Your task to perform on an android device: Open internet settings Image 0: 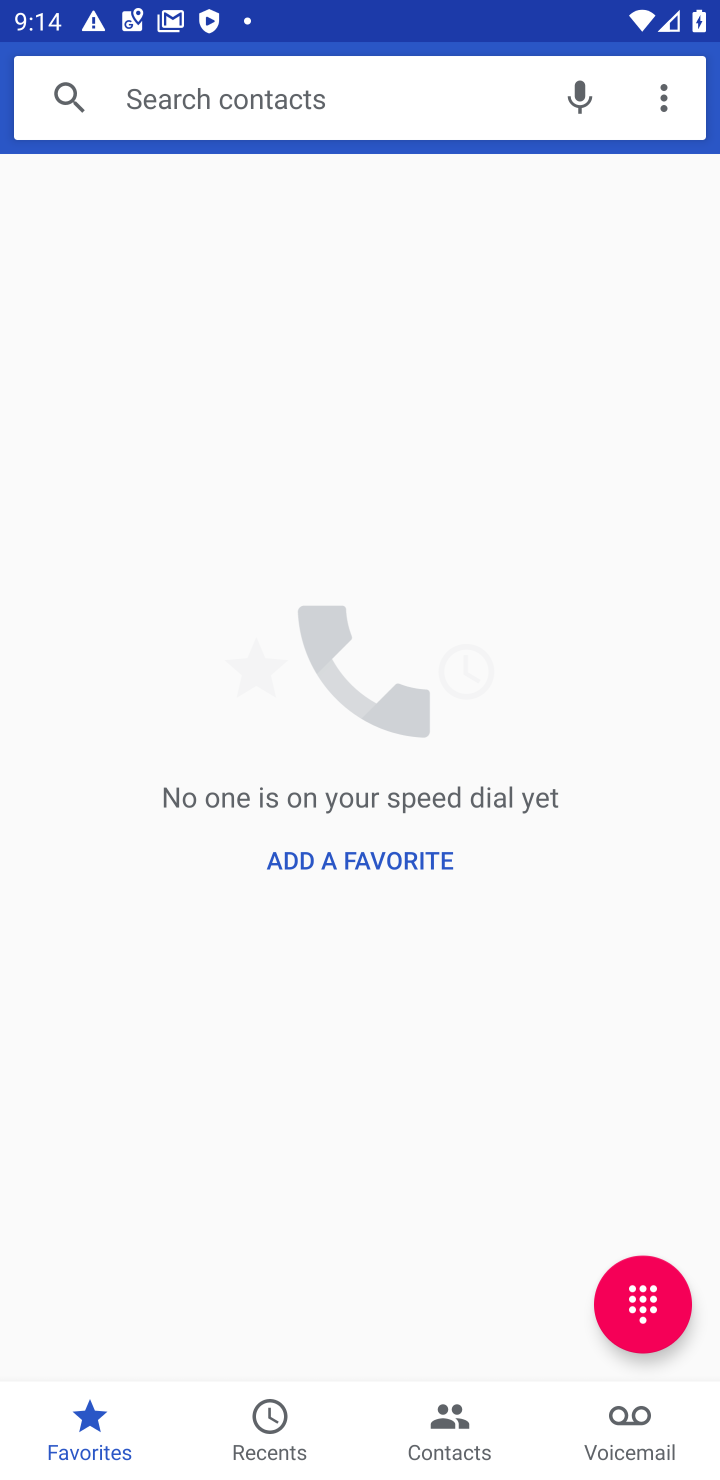
Step 0: press home button
Your task to perform on an android device: Open internet settings Image 1: 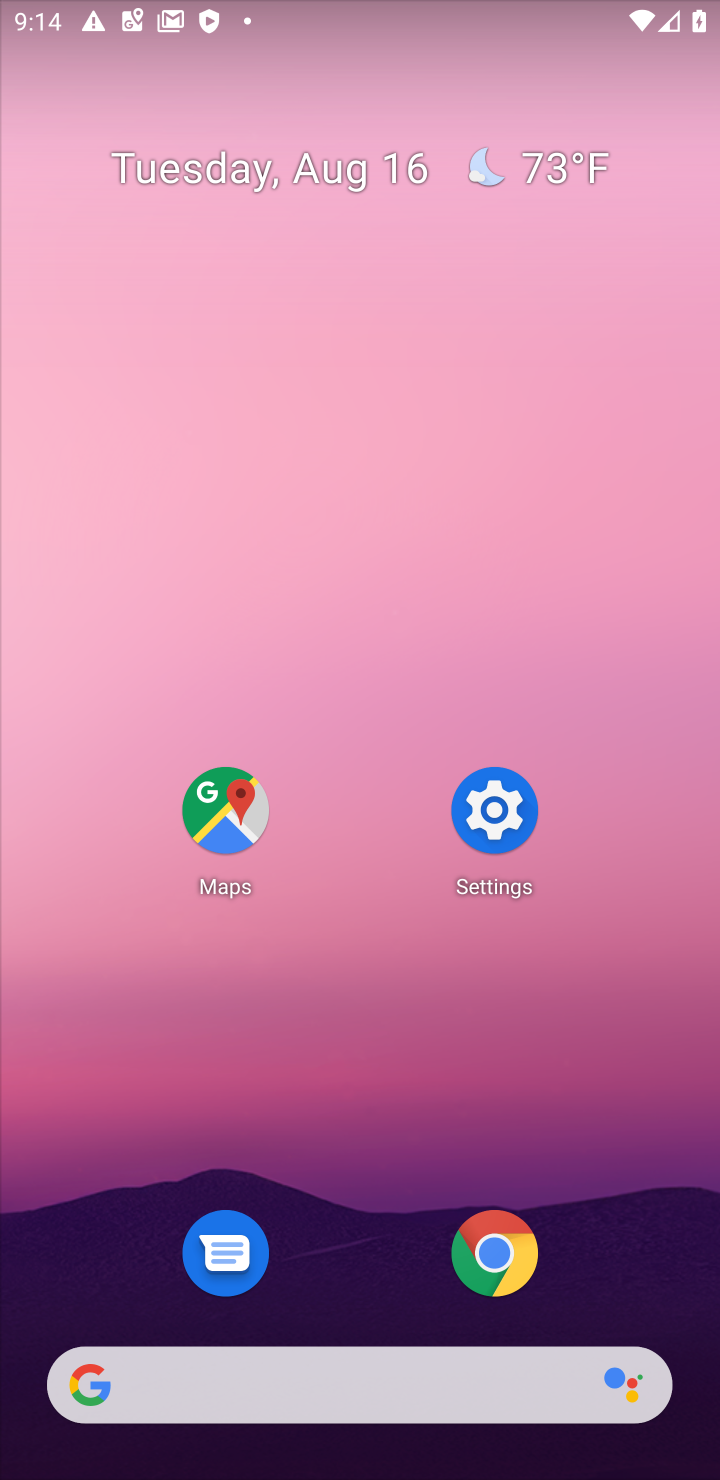
Step 1: click (489, 804)
Your task to perform on an android device: Open internet settings Image 2: 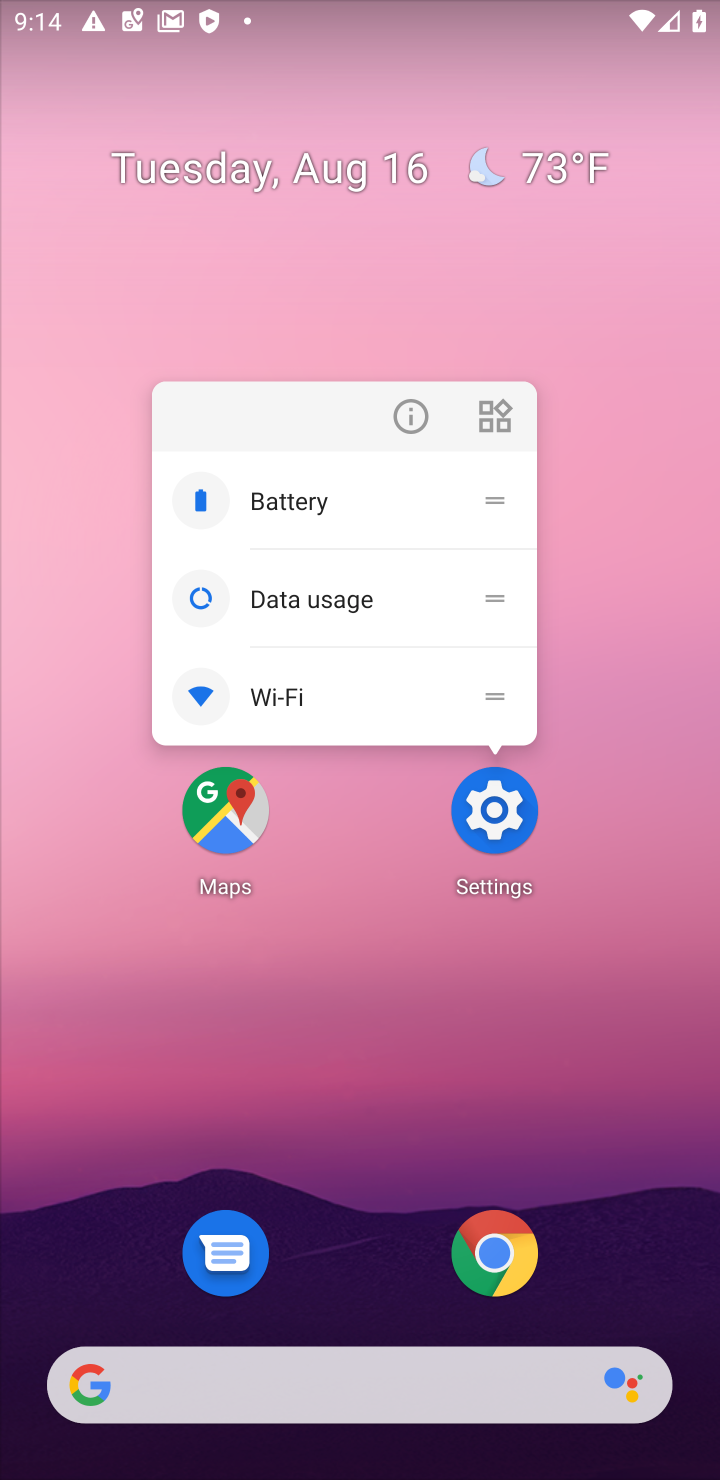
Step 2: click (500, 825)
Your task to perform on an android device: Open internet settings Image 3: 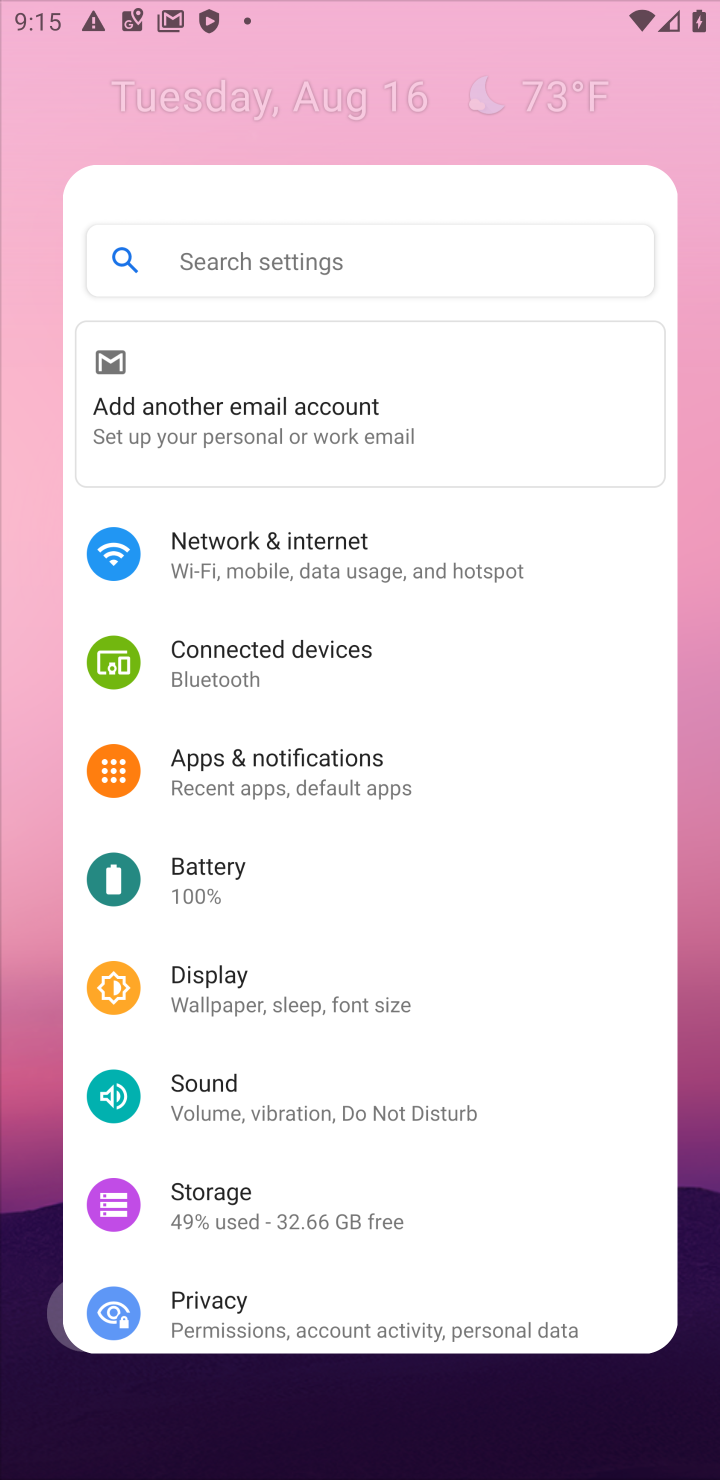
Step 3: click (502, 827)
Your task to perform on an android device: Open internet settings Image 4: 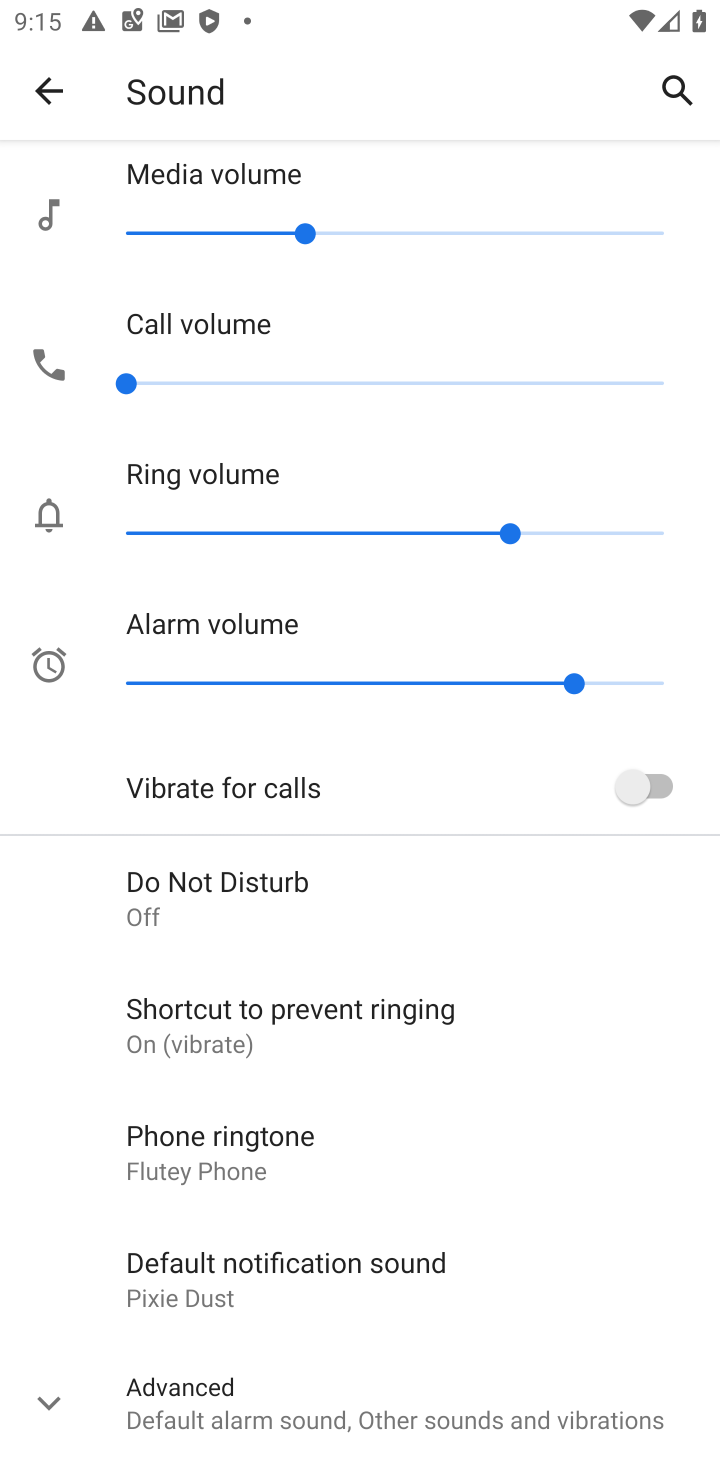
Step 4: press back button
Your task to perform on an android device: Open internet settings Image 5: 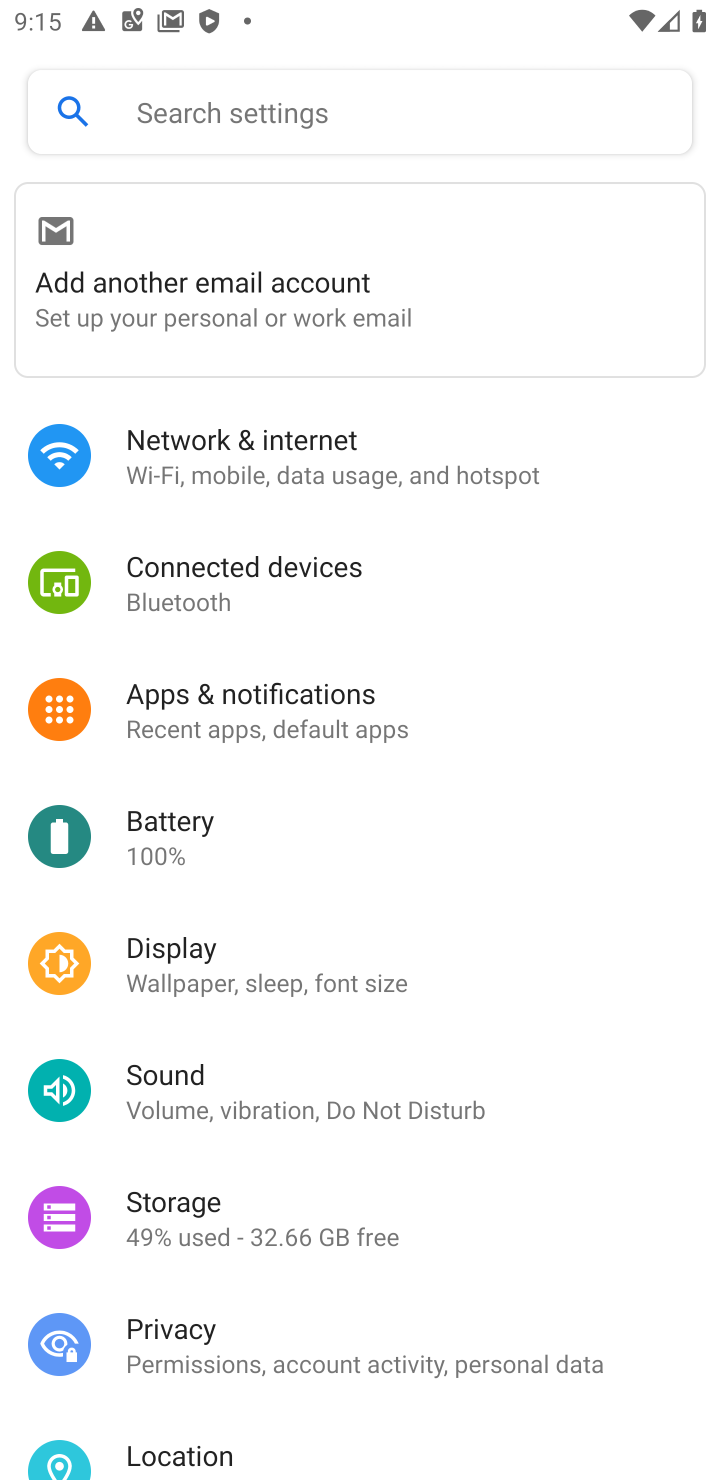
Step 5: click (258, 445)
Your task to perform on an android device: Open internet settings Image 6: 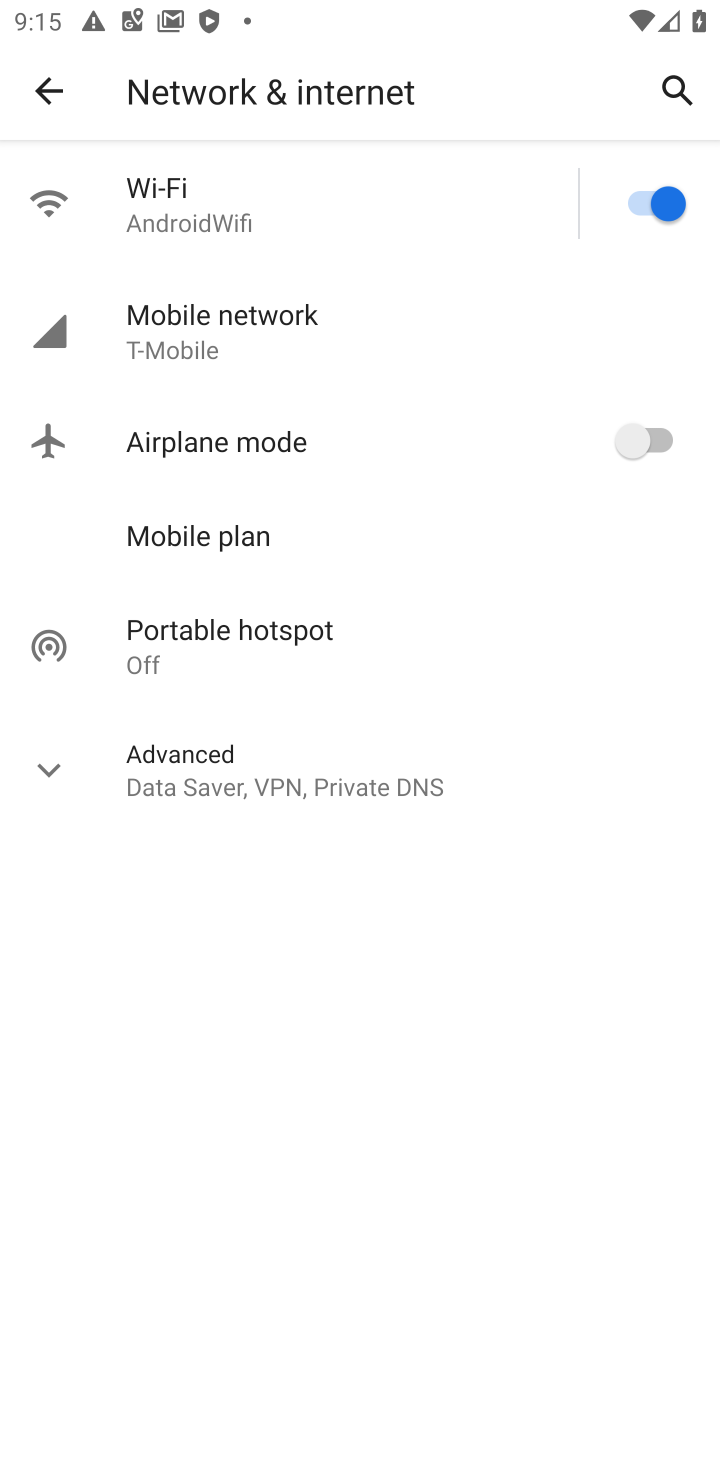
Step 6: click (168, 211)
Your task to perform on an android device: Open internet settings Image 7: 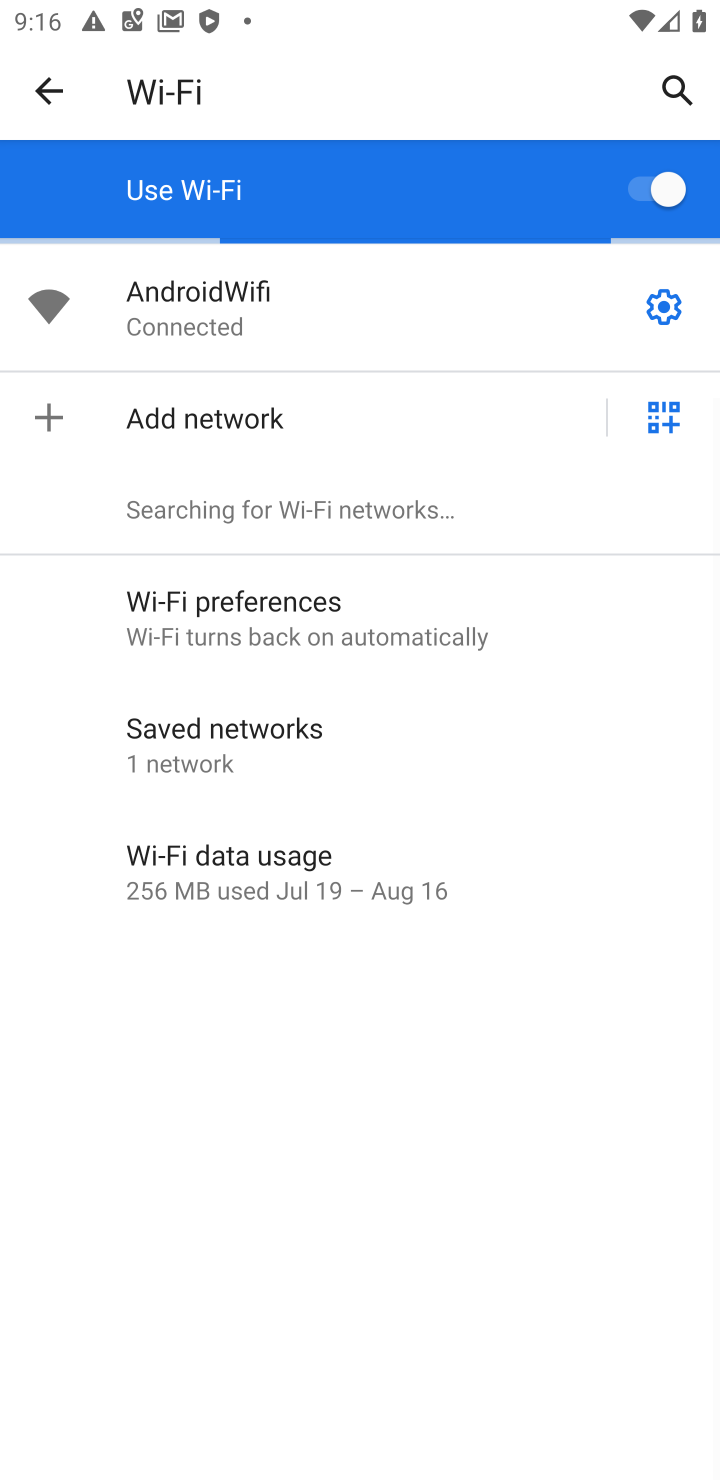
Step 7: task complete